Your task to perform on an android device: Go to accessibility settings Image 0: 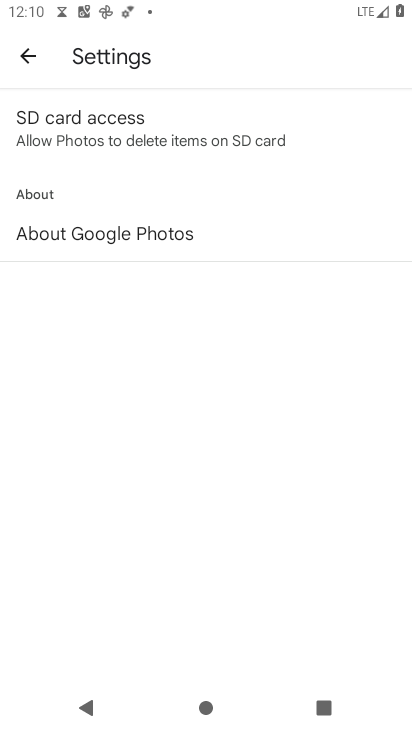
Step 0: press home button
Your task to perform on an android device: Go to accessibility settings Image 1: 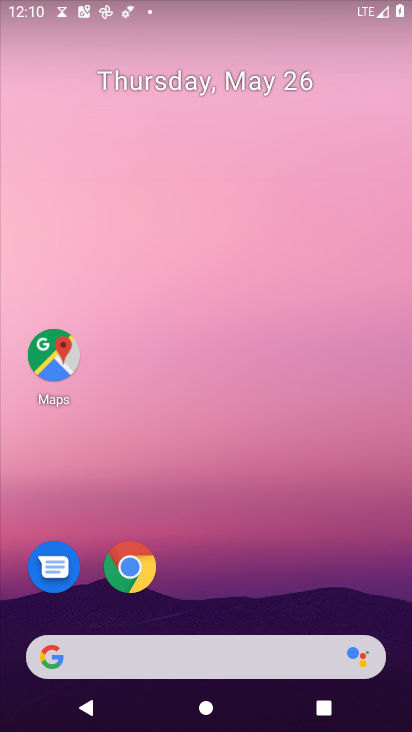
Step 1: drag from (209, 587) to (180, 95)
Your task to perform on an android device: Go to accessibility settings Image 2: 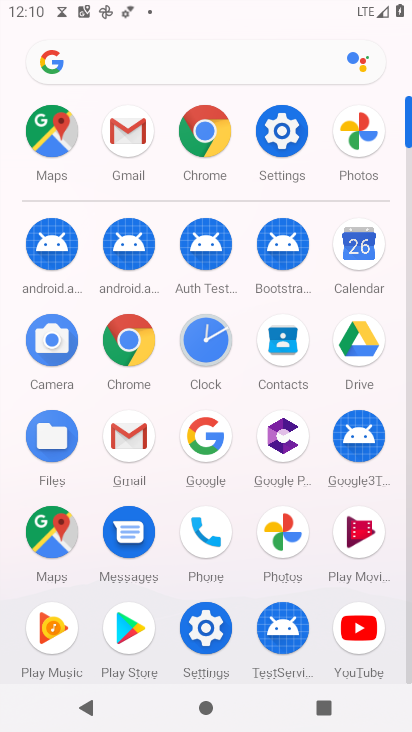
Step 2: click (279, 142)
Your task to perform on an android device: Go to accessibility settings Image 3: 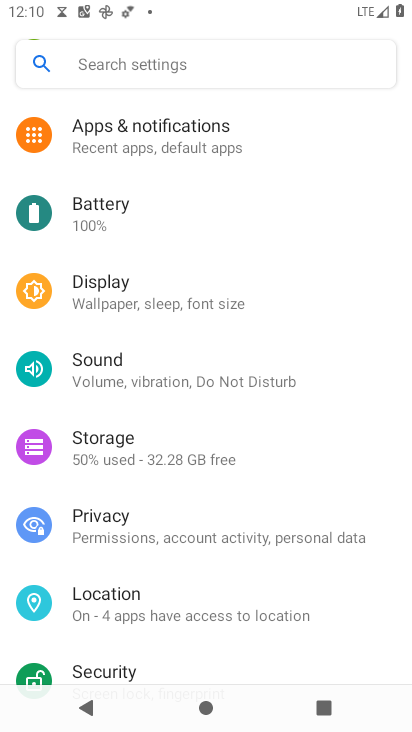
Step 3: drag from (164, 539) to (179, 213)
Your task to perform on an android device: Go to accessibility settings Image 4: 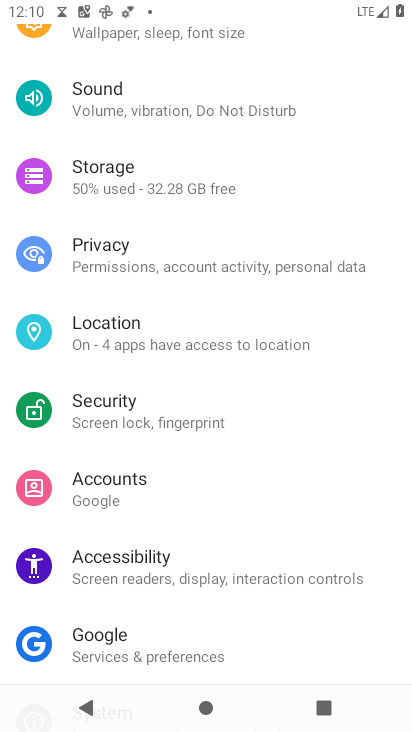
Step 4: click (190, 579)
Your task to perform on an android device: Go to accessibility settings Image 5: 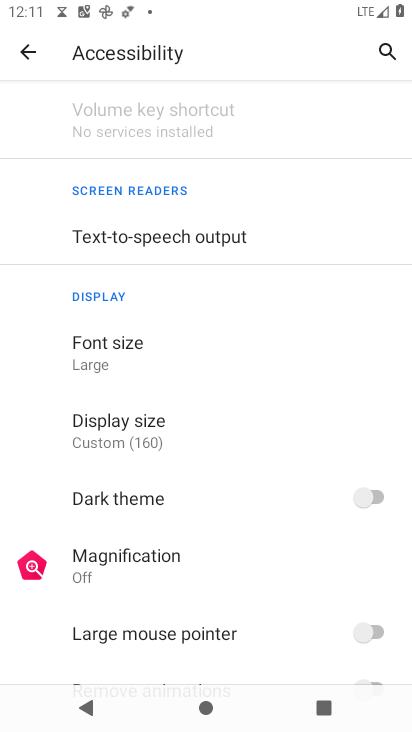
Step 5: task complete